Your task to perform on an android device: Open Google Chrome Image 0: 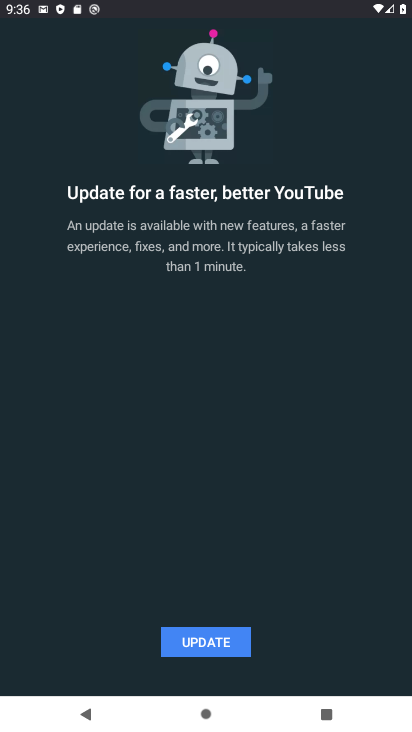
Step 0: press home button
Your task to perform on an android device: Open Google Chrome Image 1: 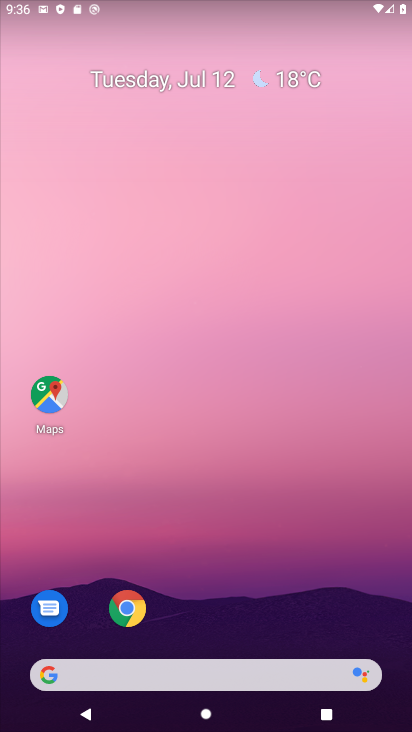
Step 1: click (126, 612)
Your task to perform on an android device: Open Google Chrome Image 2: 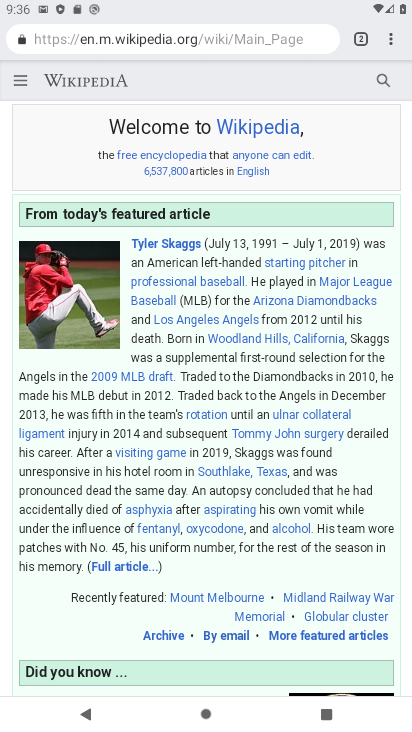
Step 2: task complete